Your task to perform on an android device: move a message to another label in the gmail app Image 0: 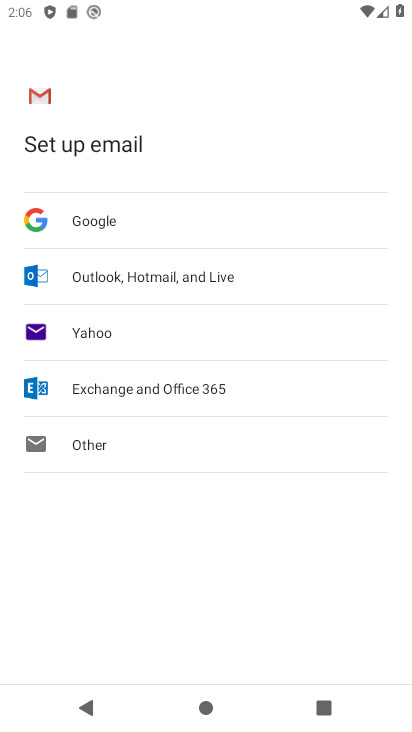
Step 0: press home button
Your task to perform on an android device: move a message to another label in the gmail app Image 1: 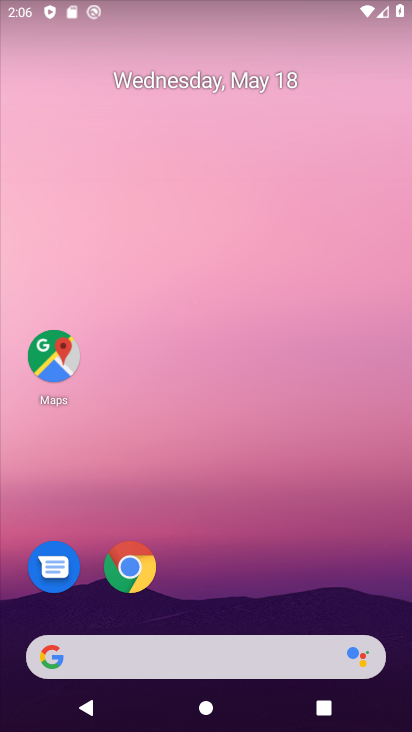
Step 1: drag from (202, 598) to (207, 188)
Your task to perform on an android device: move a message to another label in the gmail app Image 2: 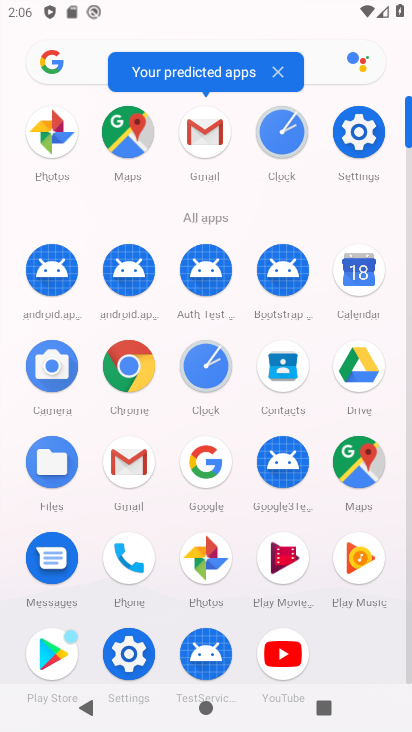
Step 2: click (127, 478)
Your task to perform on an android device: move a message to another label in the gmail app Image 3: 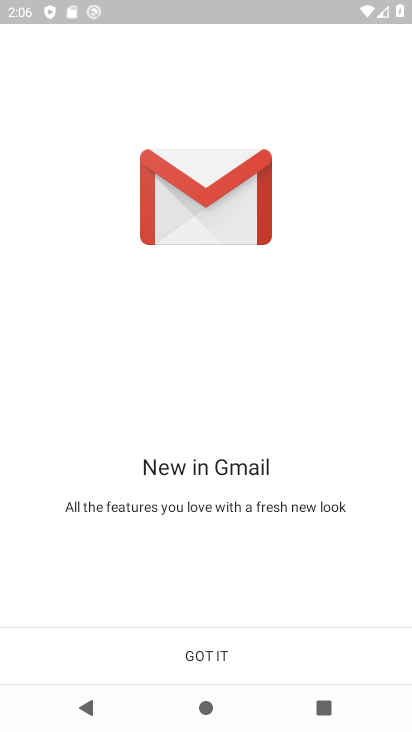
Step 3: click (236, 658)
Your task to perform on an android device: move a message to another label in the gmail app Image 4: 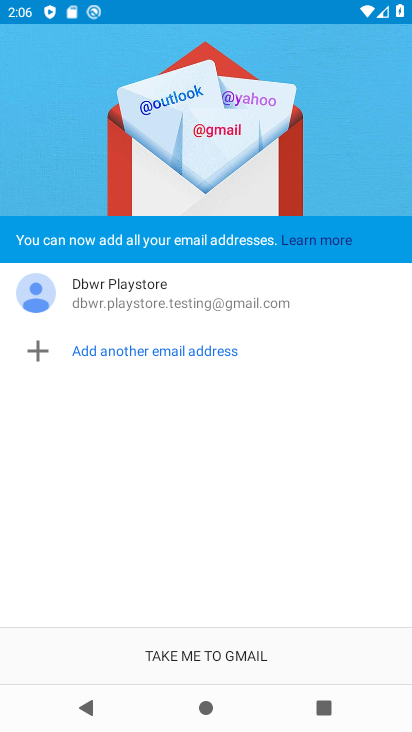
Step 4: click (225, 663)
Your task to perform on an android device: move a message to another label in the gmail app Image 5: 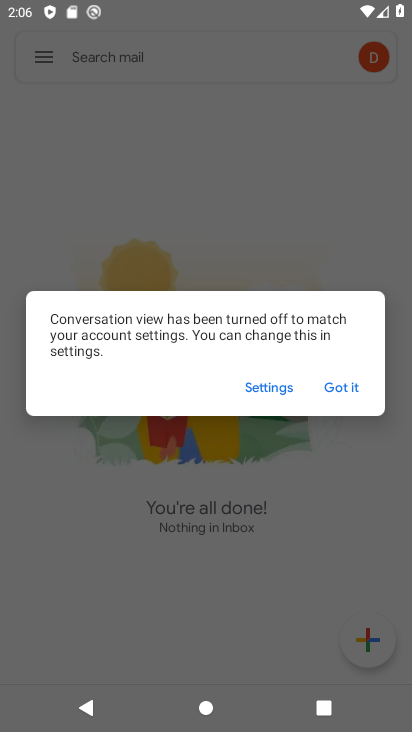
Step 5: click (343, 385)
Your task to perform on an android device: move a message to another label in the gmail app Image 6: 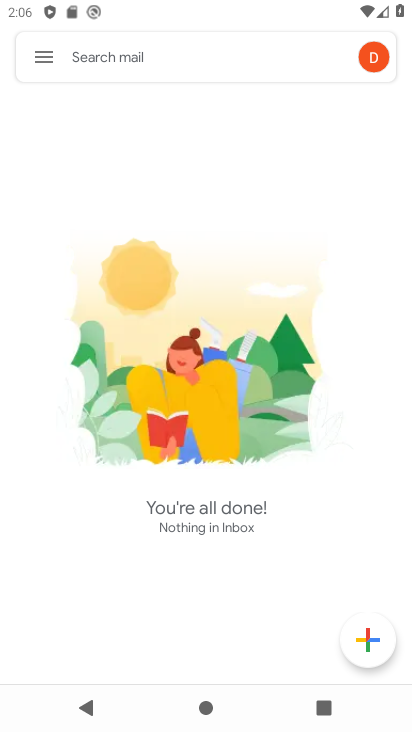
Step 6: click (41, 60)
Your task to perform on an android device: move a message to another label in the gmail app Image 7: 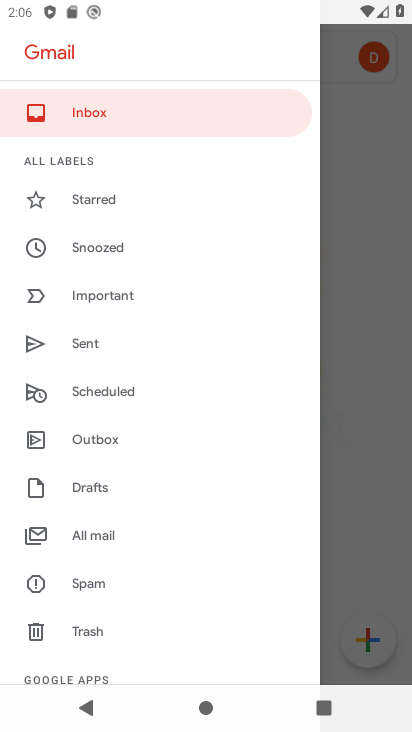
Step 7: drag from (98, 437) to (166, 161)
Your task to perform on an android device: move a message to another label in the gmail app Image 8: 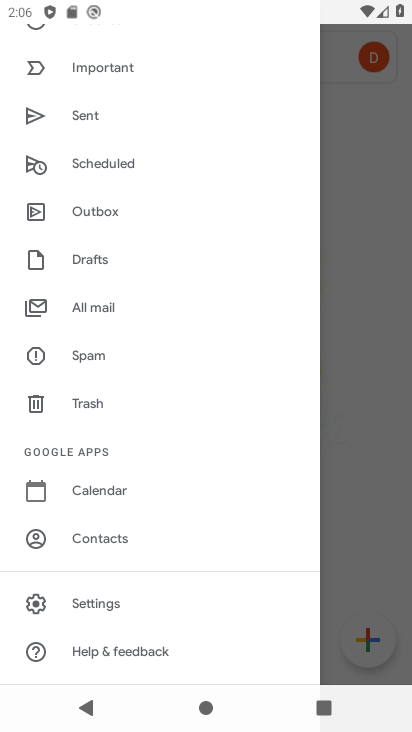
Step 8: click (98, 304)
Your task to perform on an android device: move a message to another label in the gmail app Image 9: 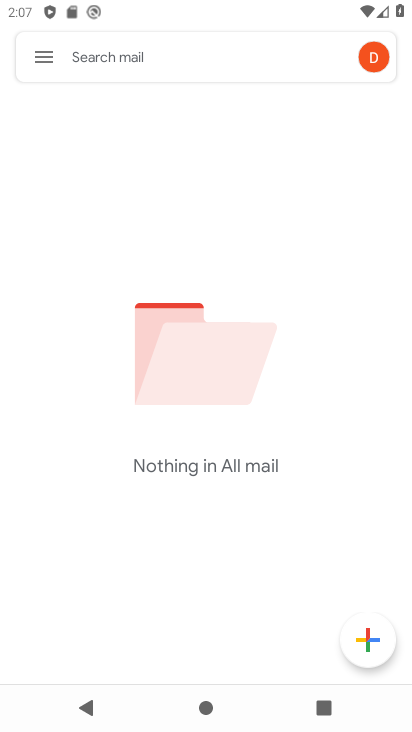
Step 9: task complete